Your task to perform on an android device: Open the calendar and show me this week's events? Image 0: 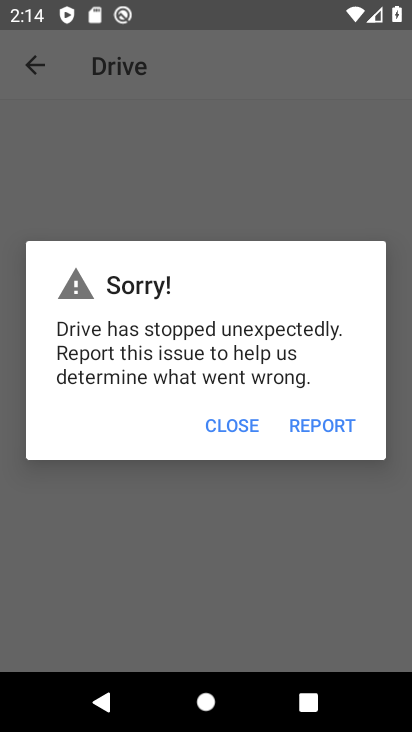
Step 0: press home button
Your task to perform on an android device: Open the calendar and show me this week's events? Image 1: 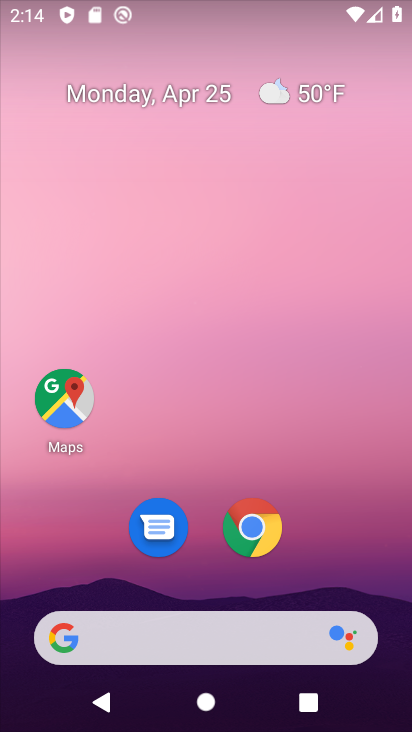
Step 1: drag from (217, 420) to (248, 24)
Your task to perform on an android device: Open the calendar and show me this week's events? Image 2: 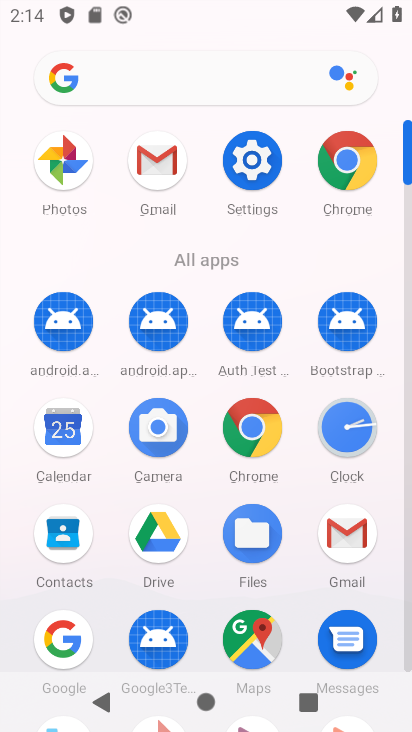
Step 2: click (59, 436)
Your task to perform on an android device: Open the calendar and show me this week's events? Image 3: 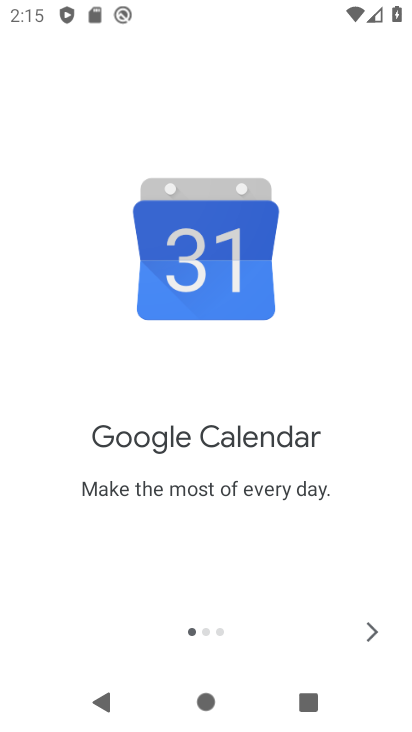
Step 3: click (372, 646)
Your task to perform on an android device: Open the calendar and show me this week's events? Image 4: 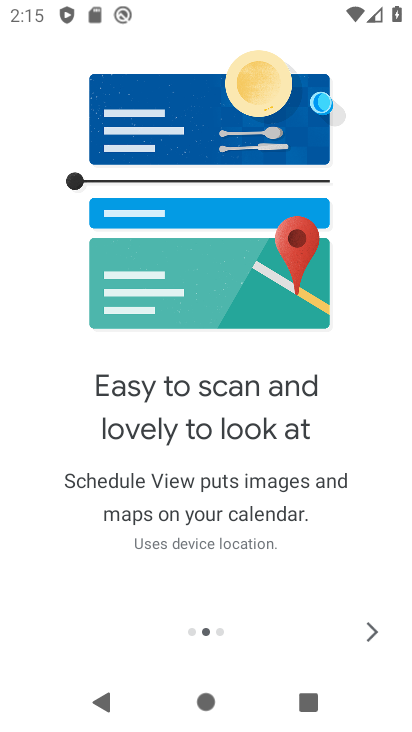
Step 4: click (372, 639)
Your task to perform on an android device: Open the calendar and show me this week's events? Image 5: 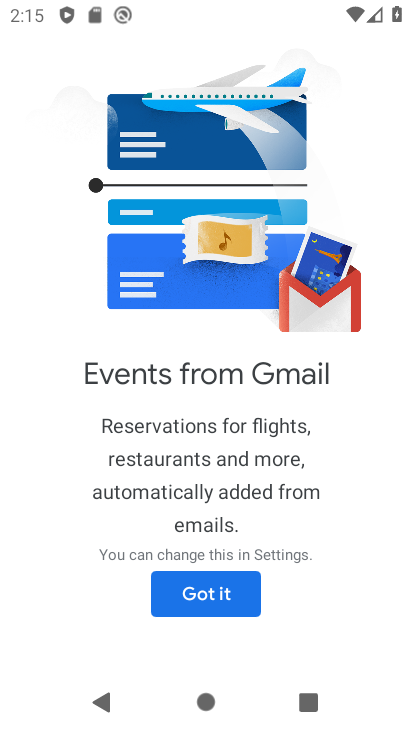
Step 5: click (372, 639)
Your task to perform on an android device: Open the calendar and show me this week's events? Image 6: 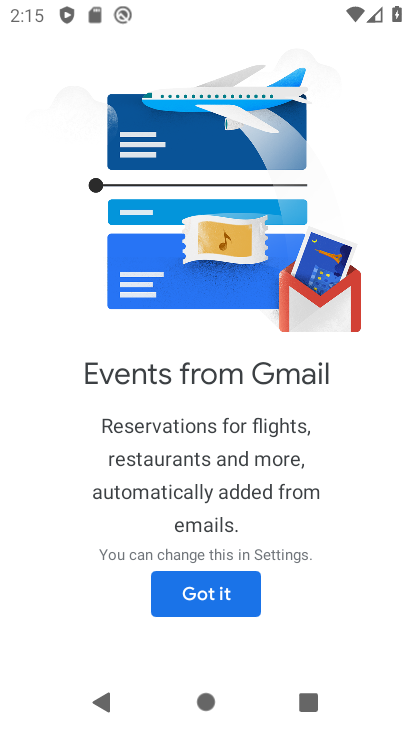
Step 6: click (244, 609)
Your task to perform on an android device: Open the calendar and show me this week's events? Image 7: 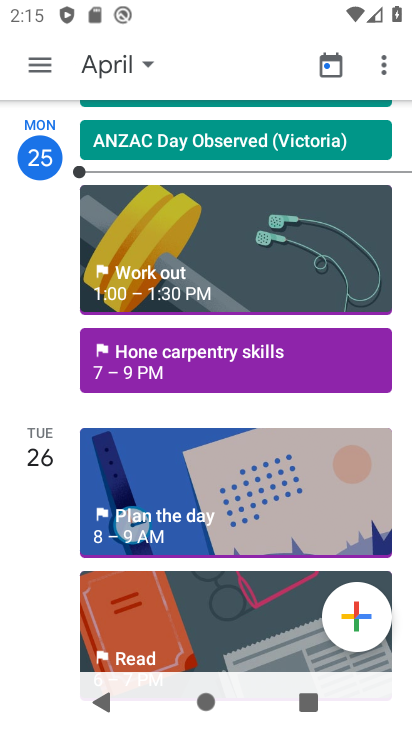
Step 7: click (48, 75)
Your task to perform on an android device: Open the calendar and show me this week's events? Image 8: 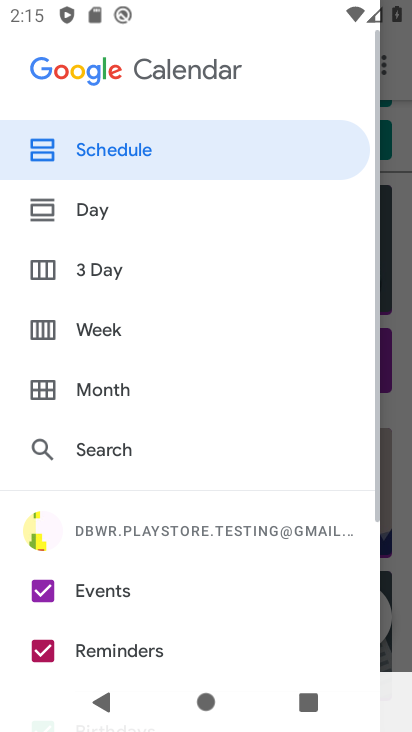
Step 8: click (125, 322)
Your task to perform on an android device: Open the calendar and show me this week's events? Image 9: 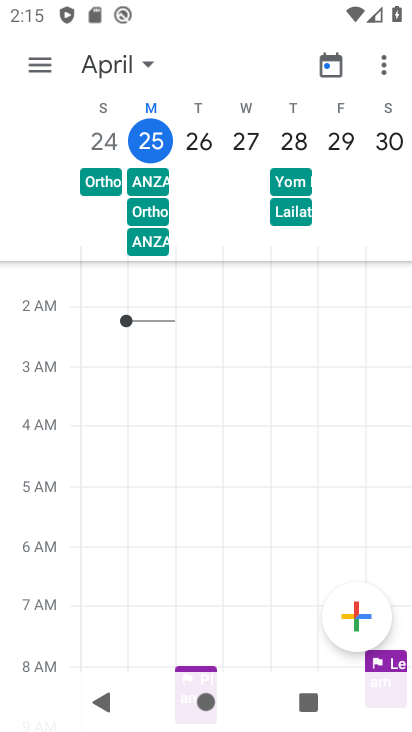
Step 9: task complete